Your task to perform on an android device: Open calendar and show me the second week of next month Image 0: 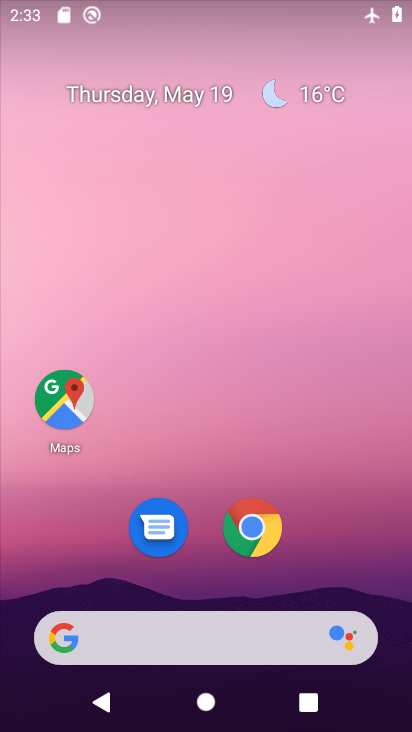
Step 0: drag from (319, 496) to (155, 2)
Your task to perform on an android device: Open calendar and show me the second week of next month Image 1: 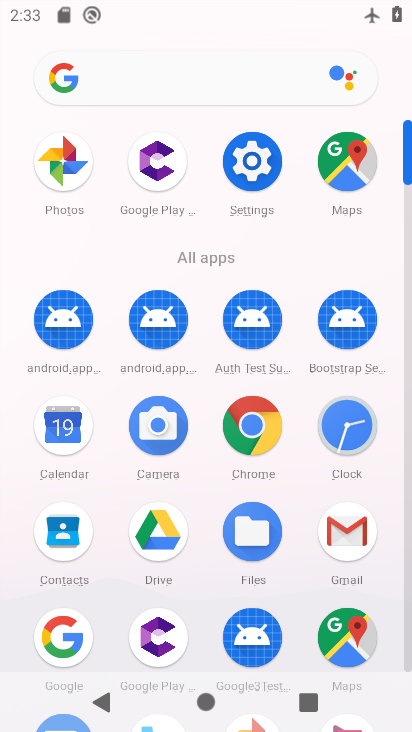
Step 1: click (59, 428)
Your task to perform on an android device: Open calendar and show me the second week of next month Image 2: 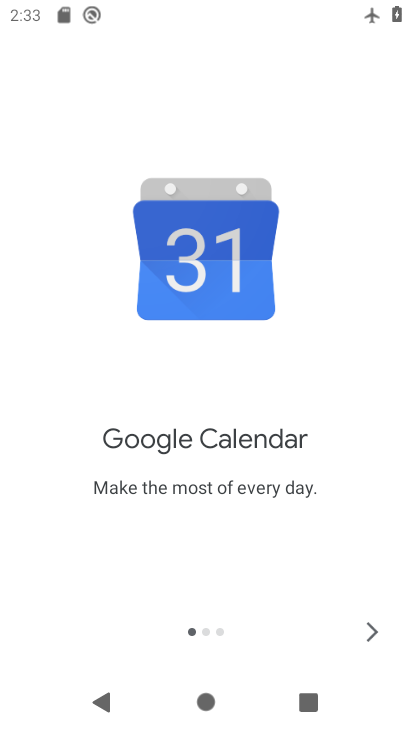
Step 2: click (369, 631)
Your task to perform on an android device: Open calendar and show me the second week of next month Image 3: 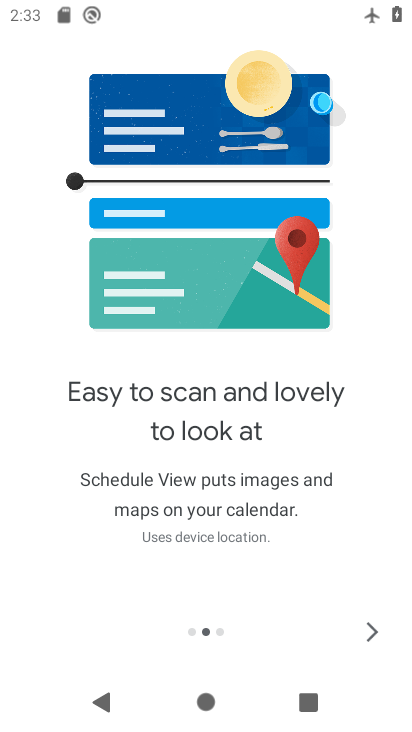
Step 3: click (371, 625)
Your task to perform on an android device: Open calendar and show me the second week of next month Image 4: 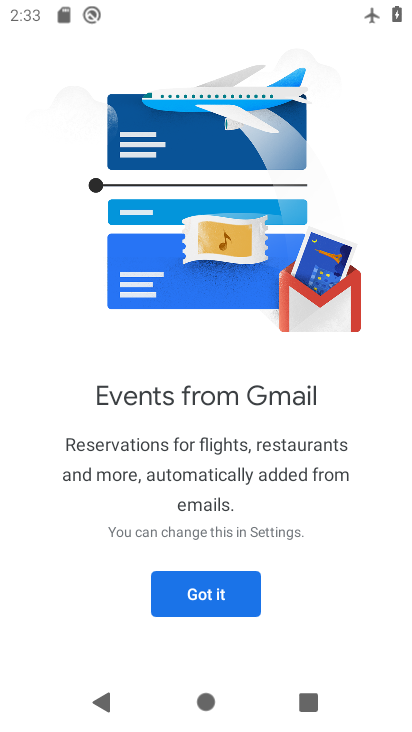
Step 4: click (221, 600)
Your task to perform on an android device: Open calendar and show me the second week of next month Image 5: 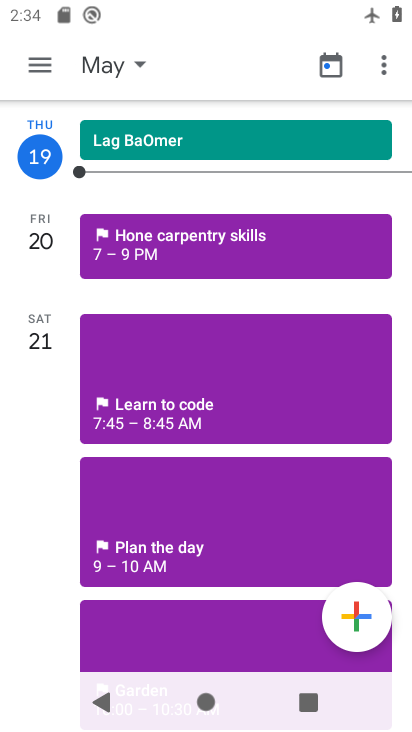
Step 5: click (136, 52)
Your task to perform on an android device: Open calendar and show me the second week of next month Image 6: 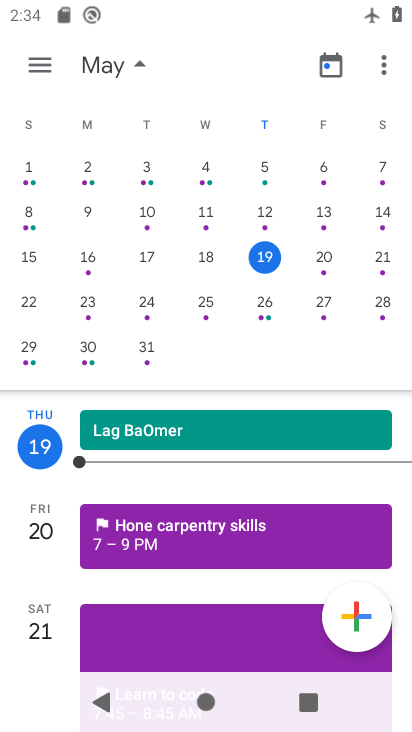
Step 6: drag from (351, 230) to (7, 174)
Your task to perform on an android device: Open calendar and show me the second week of next month Image 7: 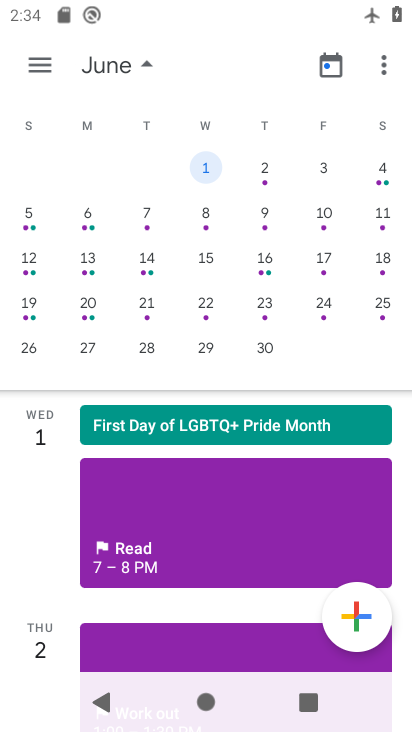
Step 7: click (32, 264)
Your task to perform on an android device: Open calendar and show me the second week of next month Image 8: 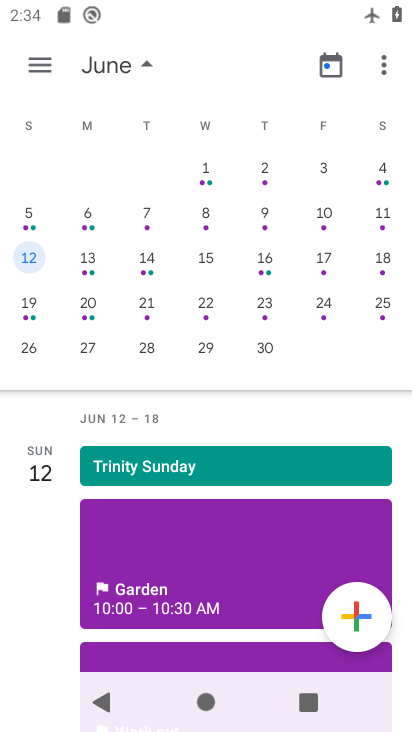
Step 8: click (27, 214)
Your task to perform on an android device: Open calendar and show me the second week of next month Image 9: 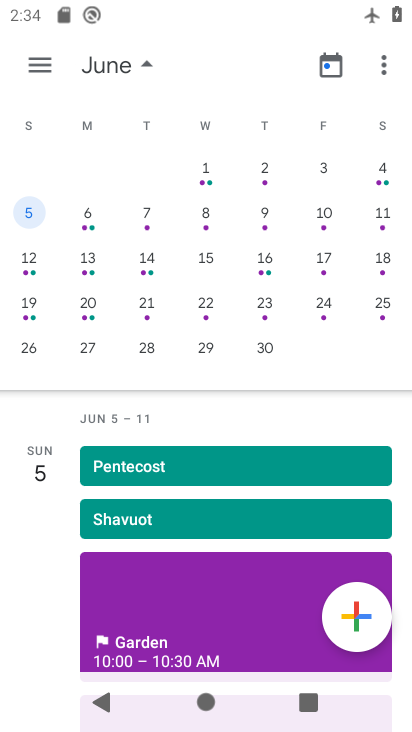
Step 9: task complete